Your task to perform on an android device: Open Google Maps and go to "Timeline" Image 0: 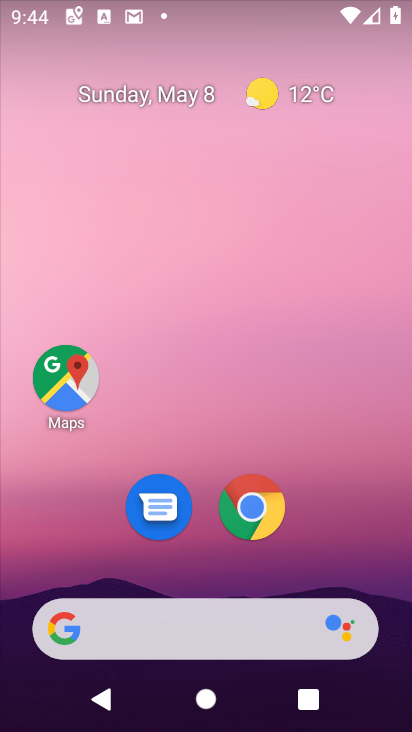
Step 0: click (270, 603)
Your task to perform on an android device: Open Google Maps and go to "Timeline" Image 1: 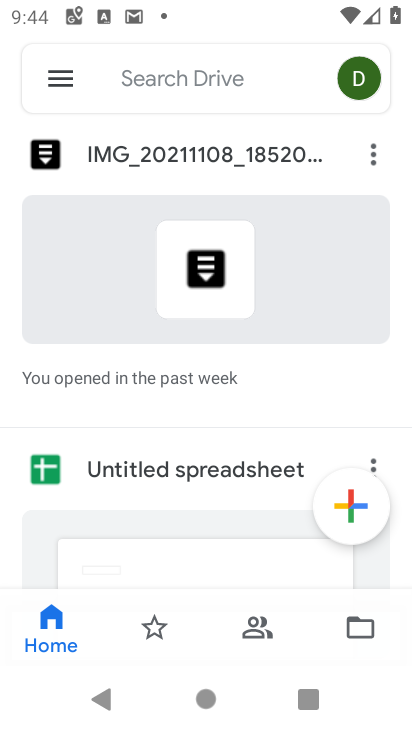
Step 1: press home button
Your task to perform on an android device: Open Google Maps and go to "Timeline" Image 2: 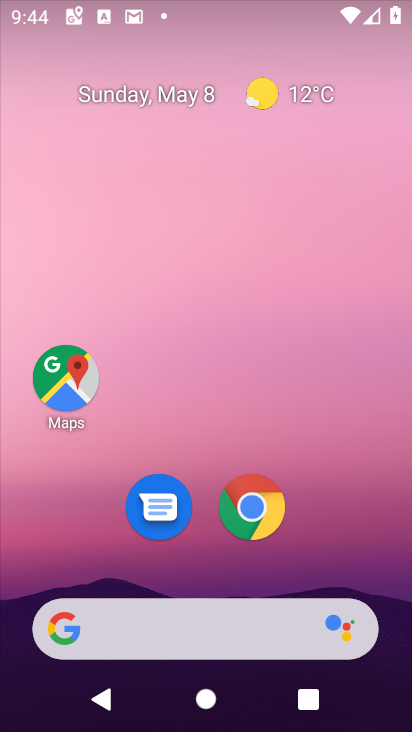
Step 2: click (218, 633)
Your task to perform on an android device: Open Google Maps and go to "Timeline" Image 3: 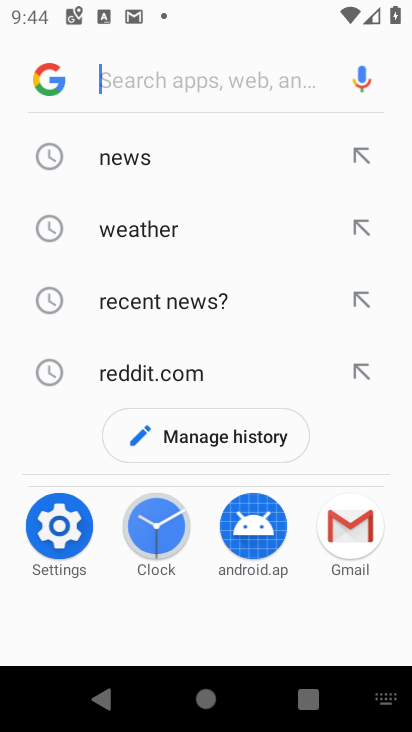
Step 3: press home button
Your task to perform on an android device: Open Google Maps and go to "Timeline" Image 4: 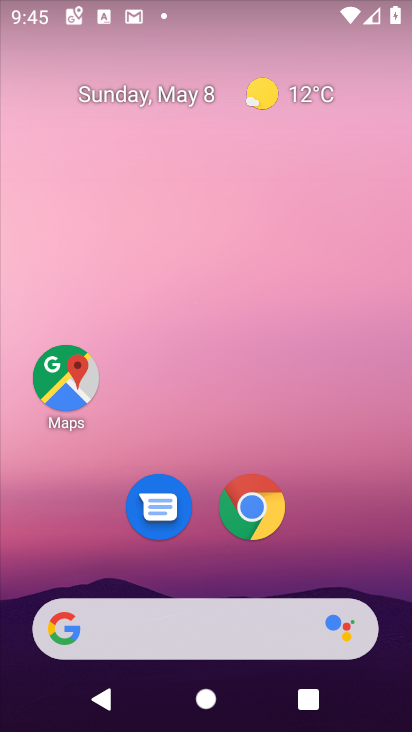
Step 4: click (53, 380)
Your task to perform on an android device: Open Google Maps and go to "Timeline" Image 5: 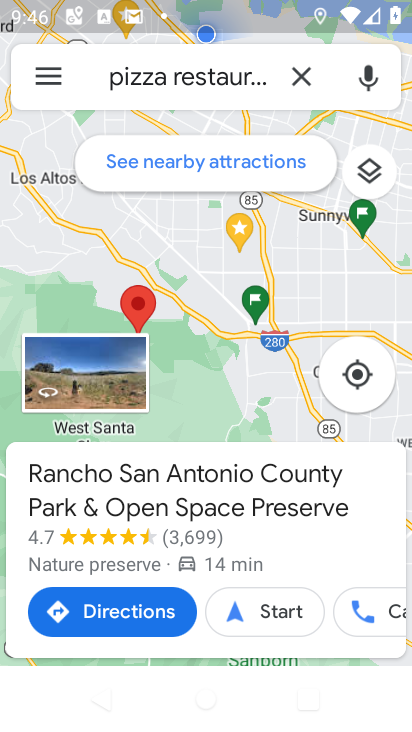
Step 5: click (43, 76)
Your task to perform on an android device: Open Google Maps and go to "Timeline" Image 6: 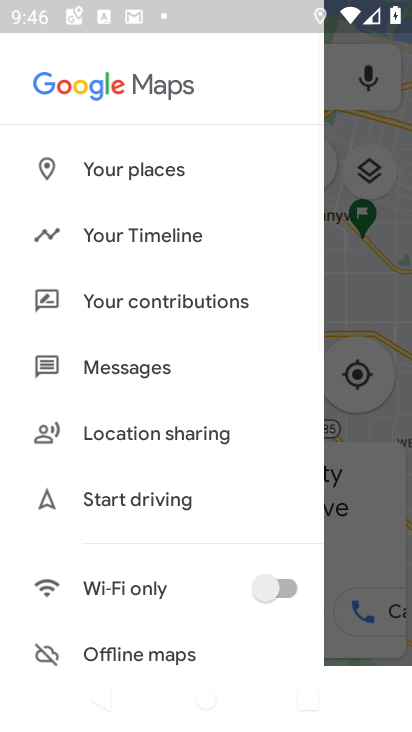
Step 6: click (150, 234)
Your task to perform on an android device: Open Google Maps and go to "Timeline" Image 7: 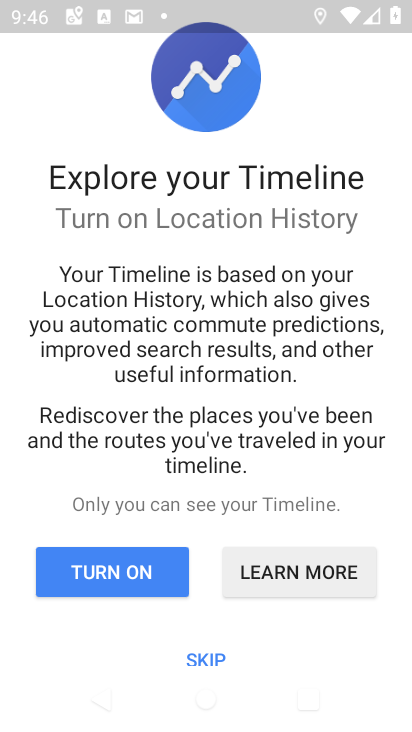
Step 7: click (205, 651)
Your task to perform on an android device: Open Google Maps and go to "Timeline" Image 8: 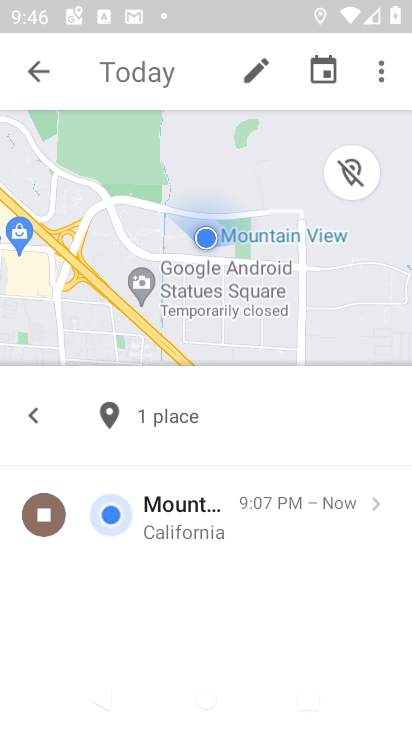
Step 8: task complete